Your task to perform on an android device: change notification settings in the gmail app Image 0: 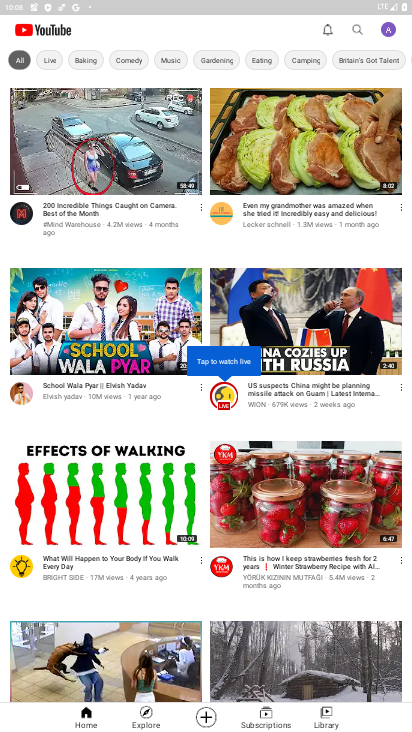
Step 0: drag from (266, 644) to (358, 249)
Your task to perform on an android device: change notification settings in the gmail app Image 1: 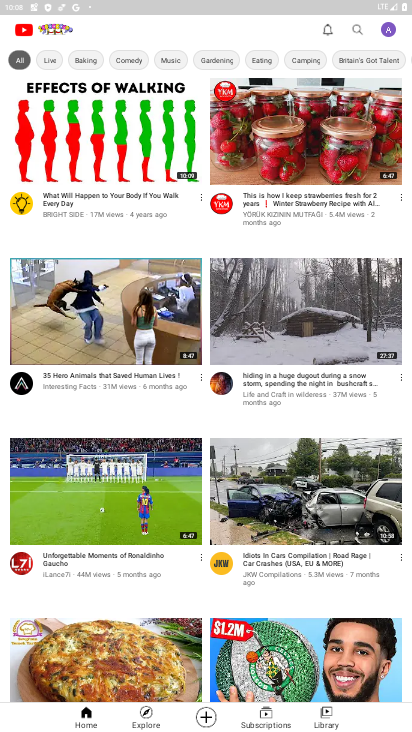
Step 1: press home button
Your task to perform on an android device: change notification settings in the gmail app Image 2: 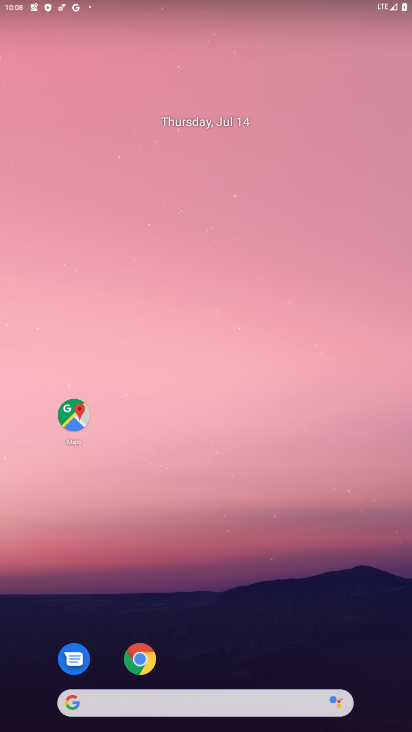
Step 2: drag from (301, 586) to (314, 337)
Your task to perform on an android device: change notification settings in the gmail app Image 3: 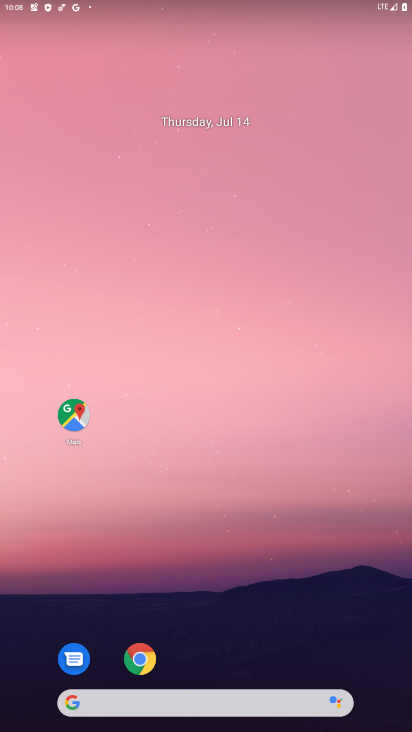
Step 3: drag from (298, 522) to (332, 87)
Your task to perform on an android device: change notification settings in the gmail app Image 4: 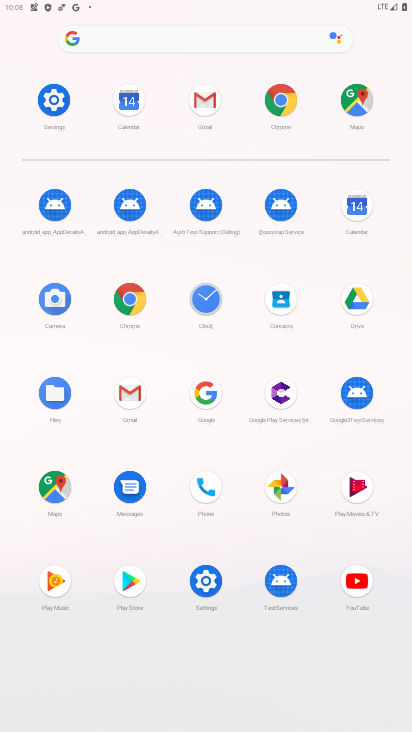
Step 4: click (199, 90)
Your task to perform on an android device: change notification settings in the gmail app Image 5: 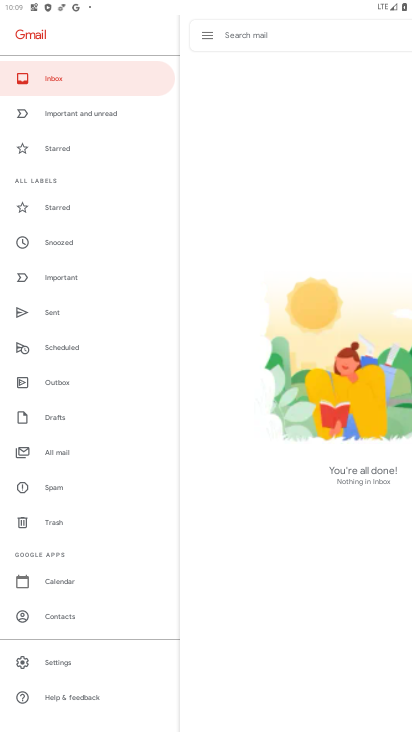
Step 5: click (66, 668)
Your task to perform on an android device: change notification settings in the gmail app Image 6: 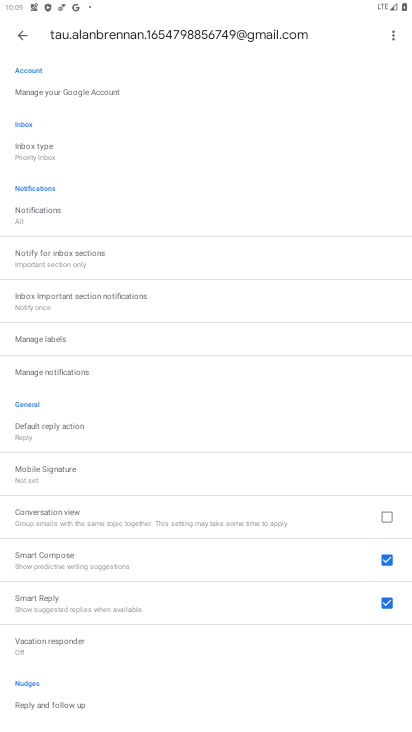
Step 6: click (77, 379)
Your task to perform on an android device: change notification settings in the gmail app Image 7: 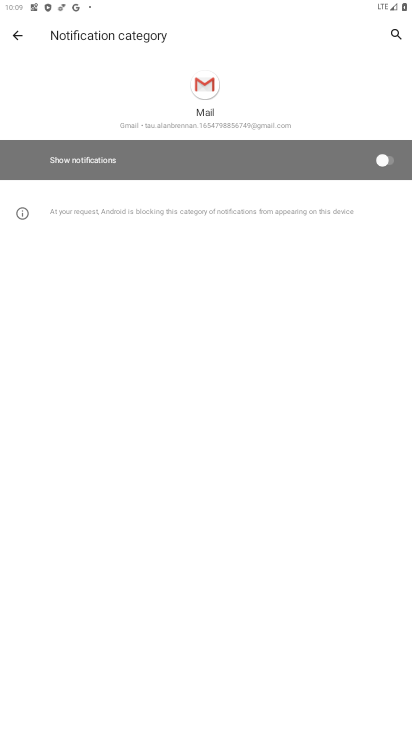
Step 7: click (401, 161)
Your task to perform on an android device: change notification settings in the gmail app Image 8: 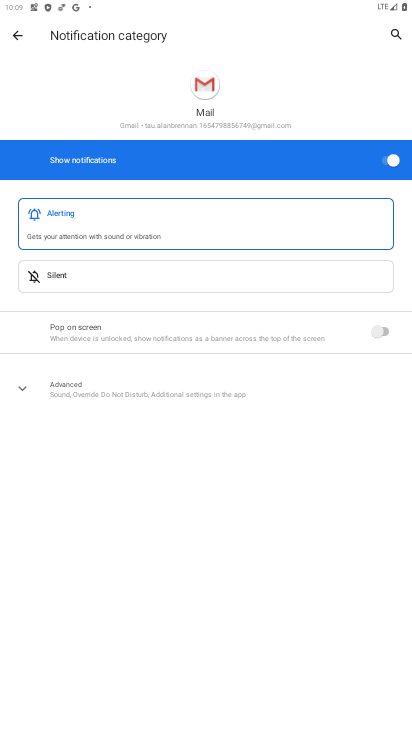
Step 8: task complete